Your task to perform on an android device: Go to notification settings Image 0: 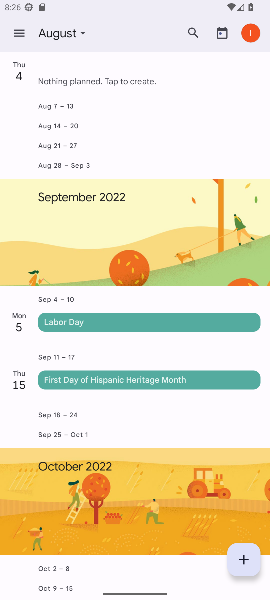
Step 0: press home button
Your task to perform on an android device: Go to notification settings Image 1: 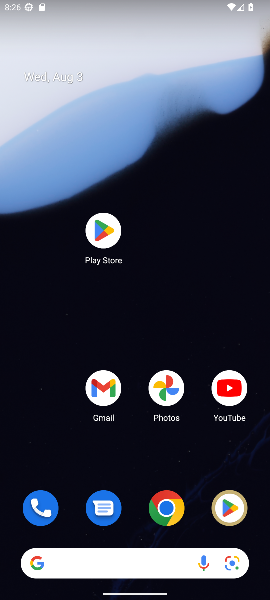
Step 1: drag from (140, 527) to (127, 22)
Your task to perform on an android device: Go to notification settings Image 2: 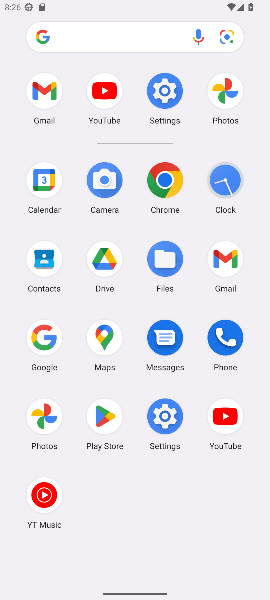
Step 2: click (162, 417)
Your task to perform on an android device: Go to notification settings Image 3: 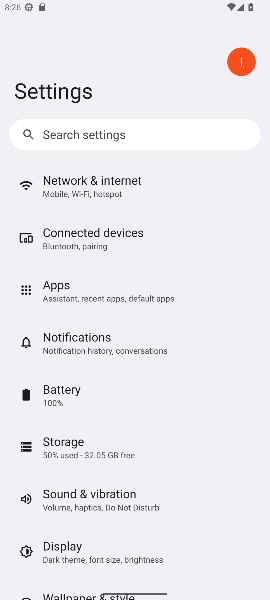
Step 3: click (83, 353)
Your task to perform on an android device: Go to notification settings Image 4: 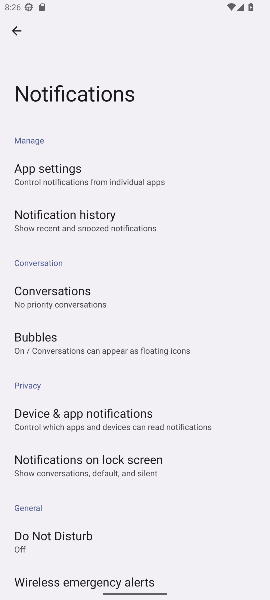
Step 4: task complete